Your task to perform on an android device: Open the stopwatch Image 0: 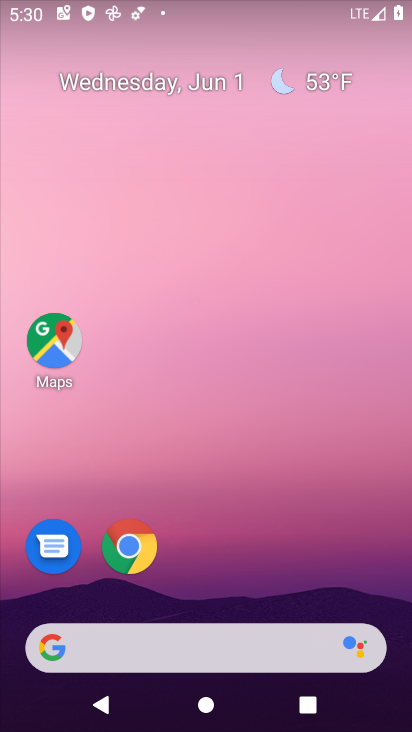
Step 0: drag from (287, 480) to (224, 20)
Your task to perform on an android device: Open the stopwatch Image 1: 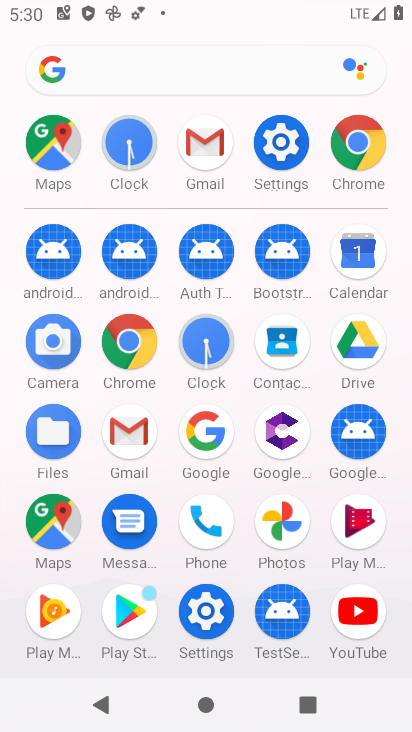
Step 1: click (204, 336)
Your task to perform on an android device: Open the stopwatch Image 2: 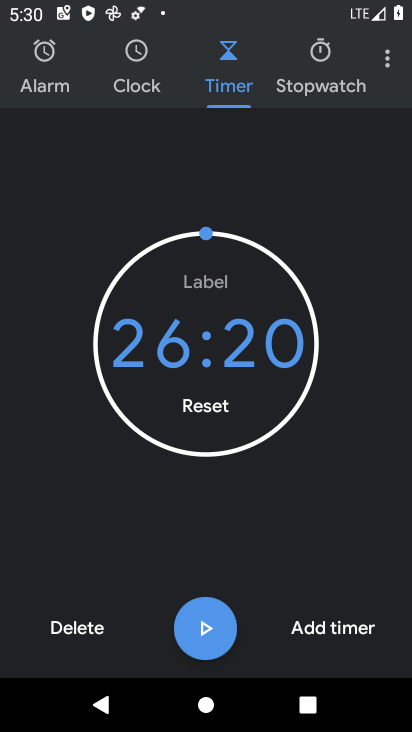
Step 2: click (316, 52)
Your task to perform on an android device: Open the stopwatch Image 3: 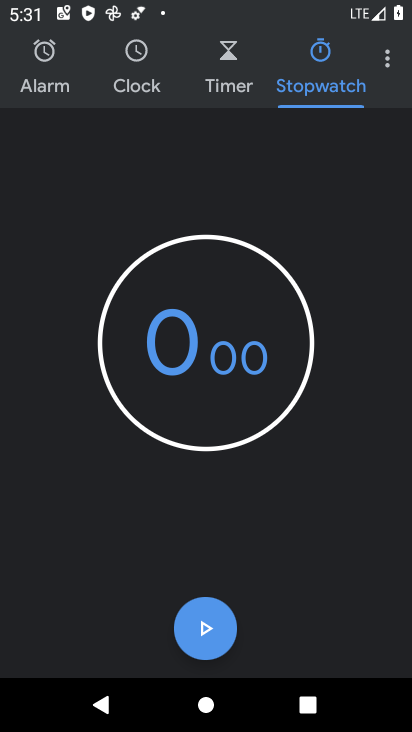
Step 3: task complete